Your task to perform on an android device: Search for a dining table on crateandbarrel.com Image 0: 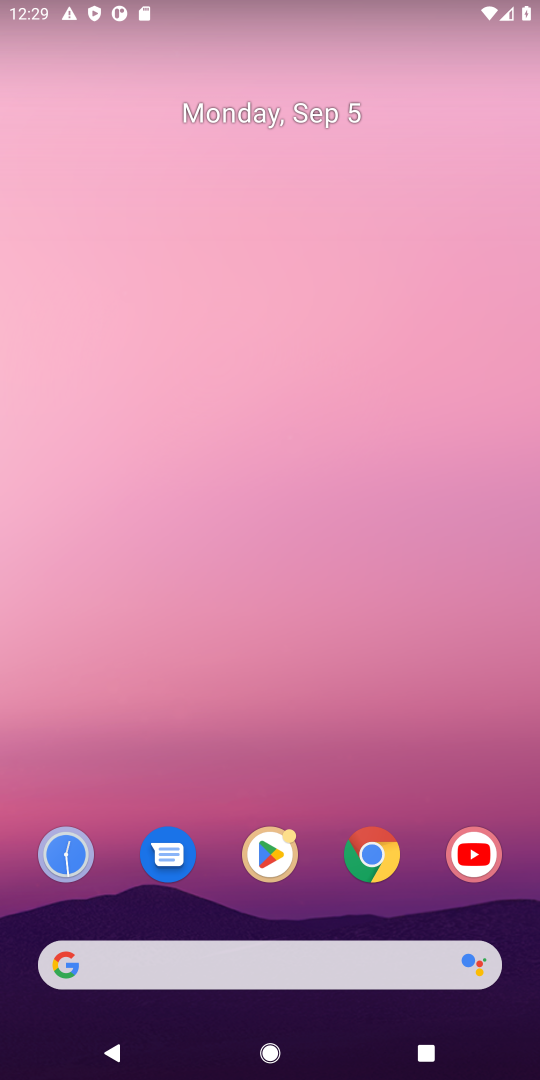
Step 0: press home button
Your task to perform on an android device: Search for a dining table on crateandbarrel.com Image 1: 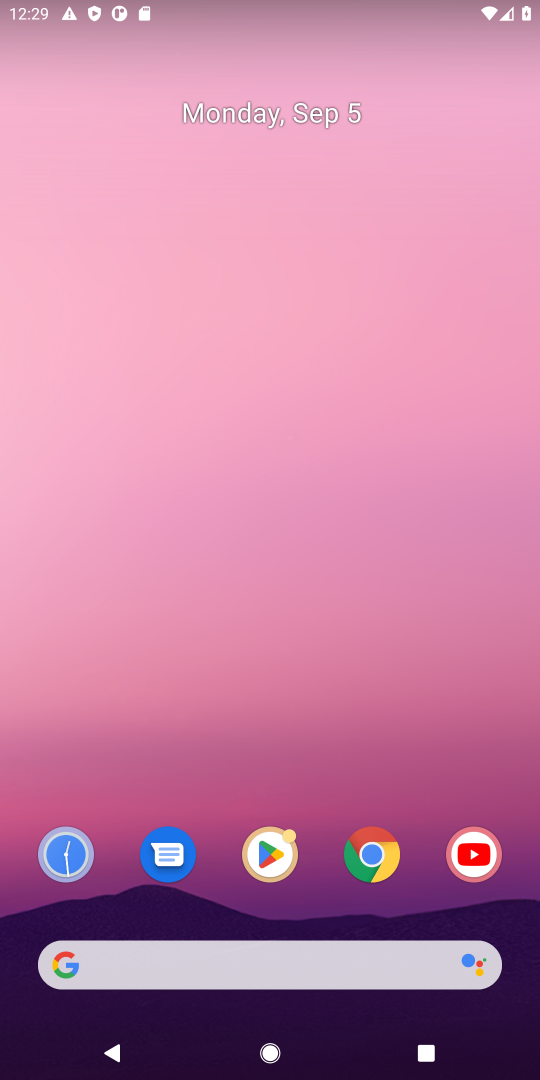
Step 1: click (344, 962)
Your task to perform on an android device: Search for a dining table on crateandbarrel.com Image 2: 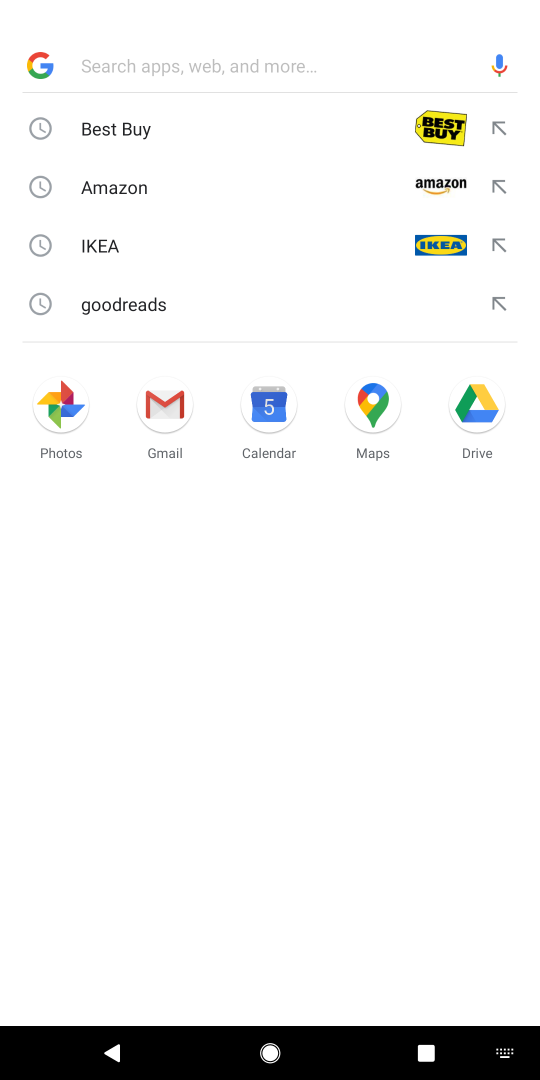
Step 2: type "crateandbarrel.com"
Your task to perform on an android device: Search for a dining table on crateandbarrel.com Image 3: 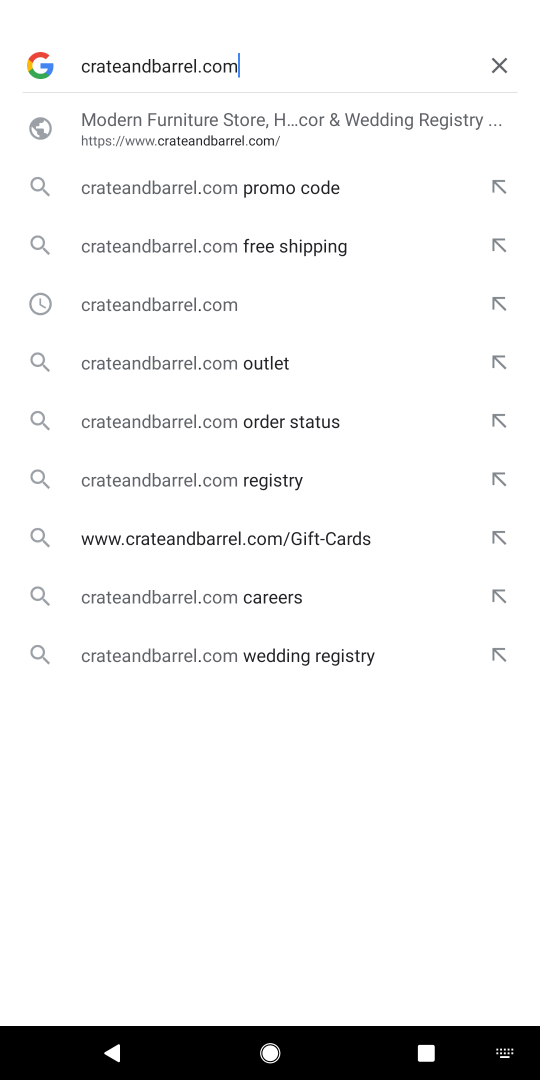
Step 3: press enter
Your task to perform on an android device: Search for a dining table on crateandbarrel.com Image 4: 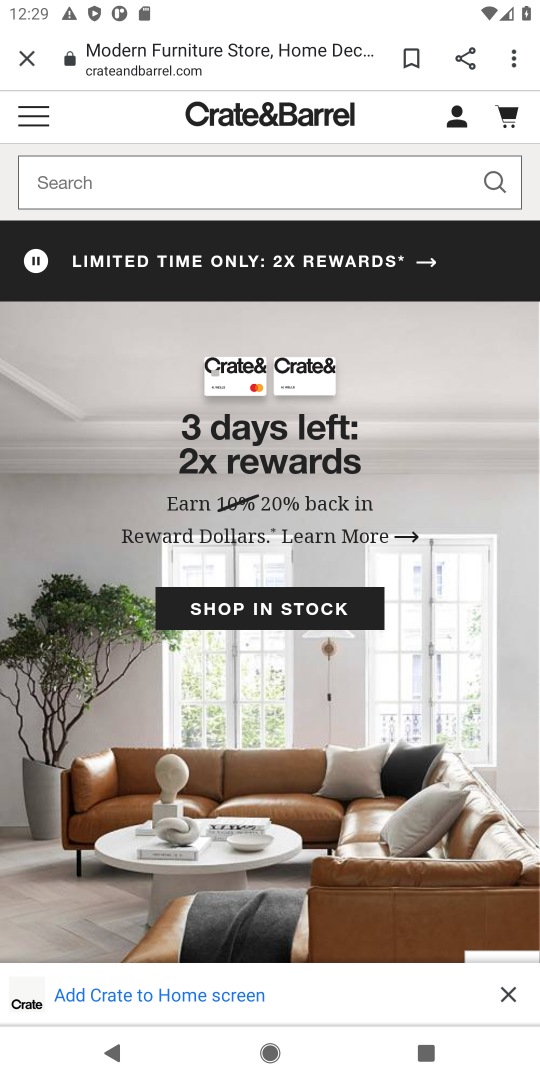
Step 4: click (125, 177)
Your task to perform on an android device: Search for a dining table on crateandbarrel.com Image 5: 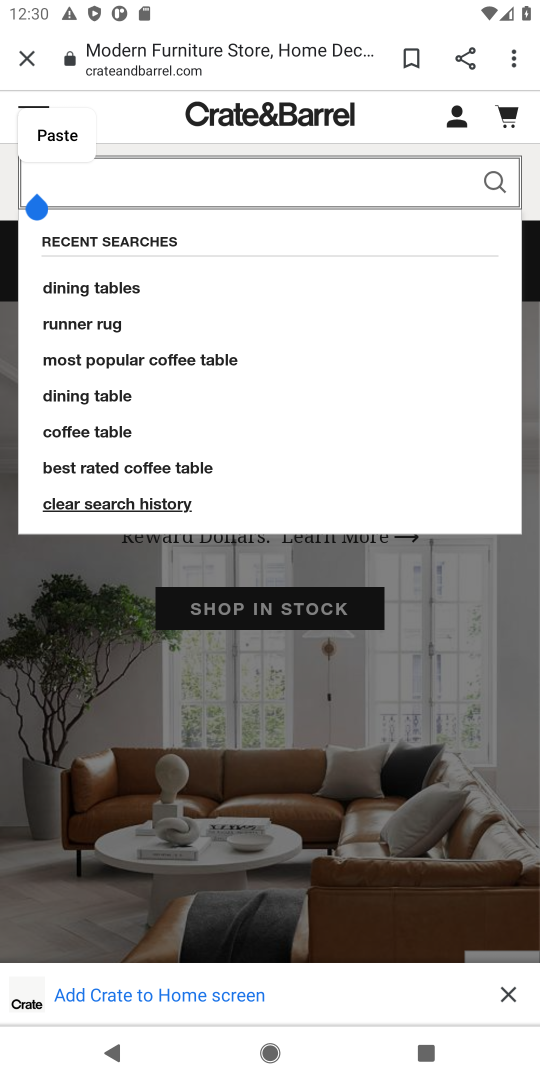
Step 5: press enter
Your task to perform on an android device: Search for a dining table on crateandbarrel.com Image 6: 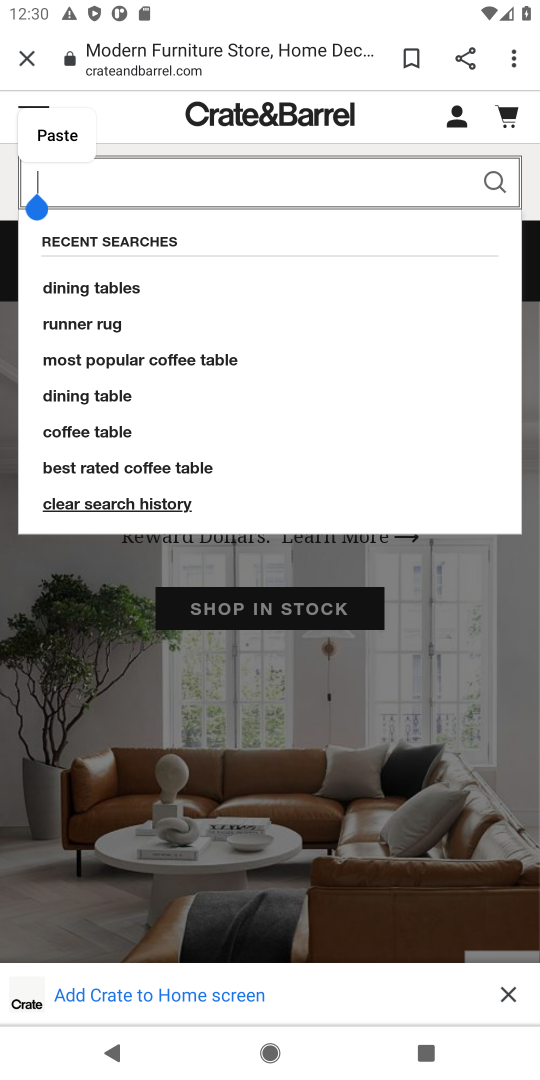
Step 6: type "dining table "
Your task to perform on an android device: Search for a dining table on crateandbarrel.com Image 7: 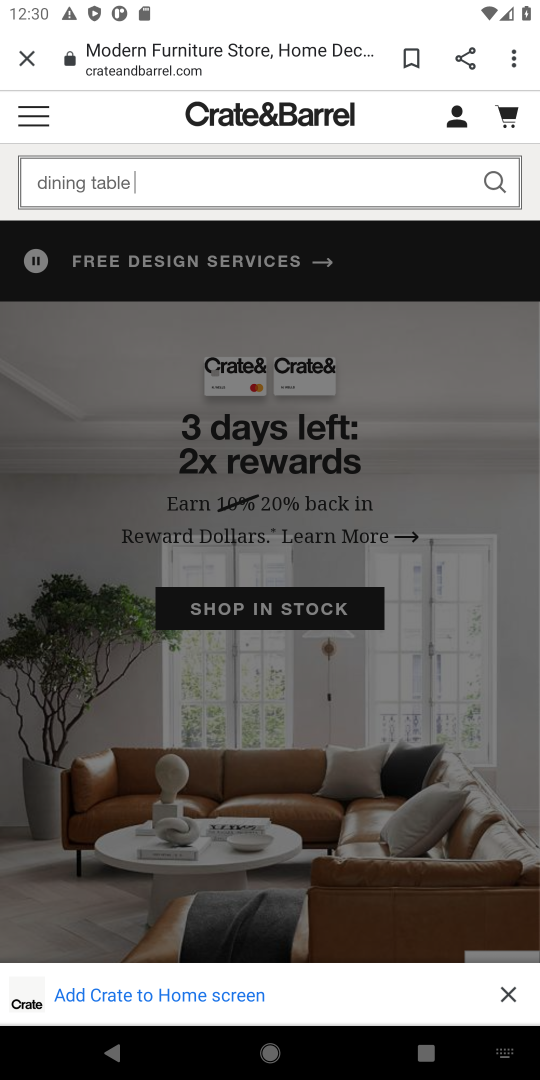
Step 7: click (499, 175)
Your task to perform on an android device: Search for a dining table on crateandbarrel.com Image 8: 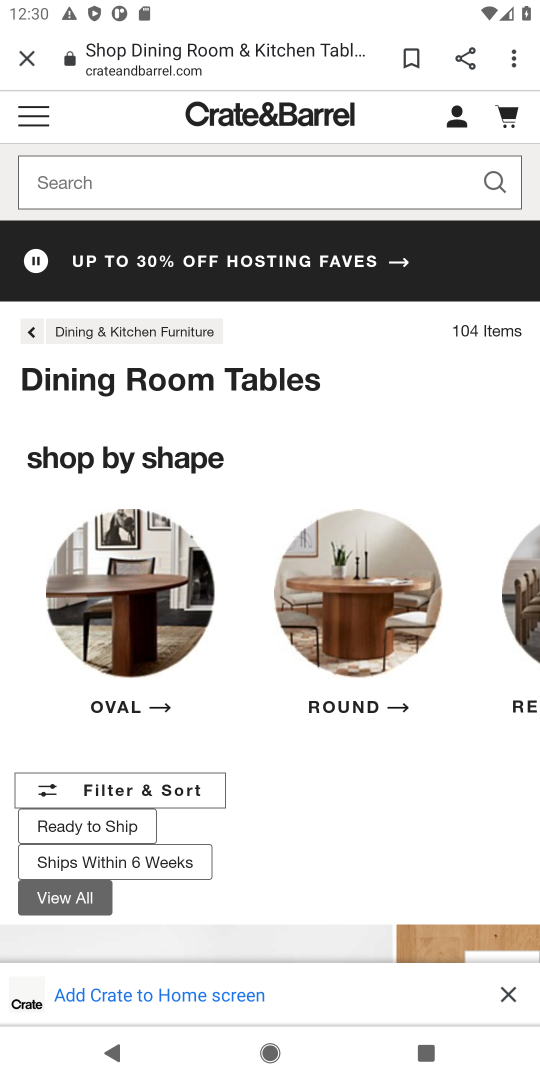
Step 8: task complete